Your task to perform on an android device: What's the weather today? Image 0: 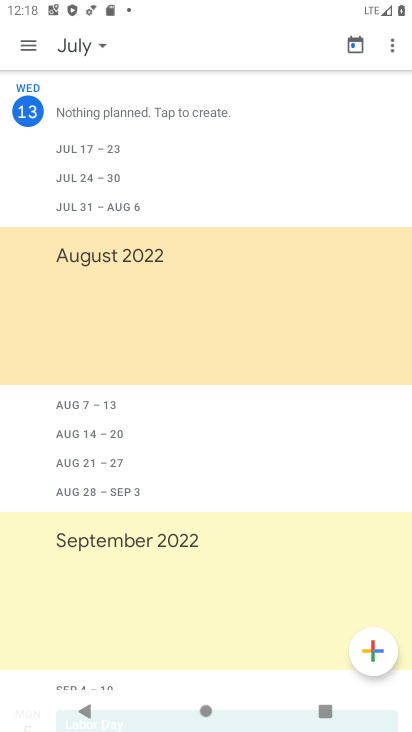
Step 0: press home button
Your task to perform on an android device: What's the weather today? Image 1: 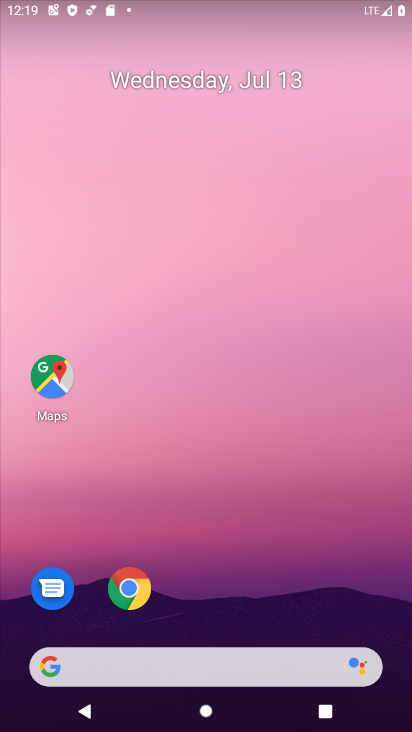
Step 1: drag from (400, 650) to (364, 133)
Your task to perform on an android device: What's the weather today? Image 2: 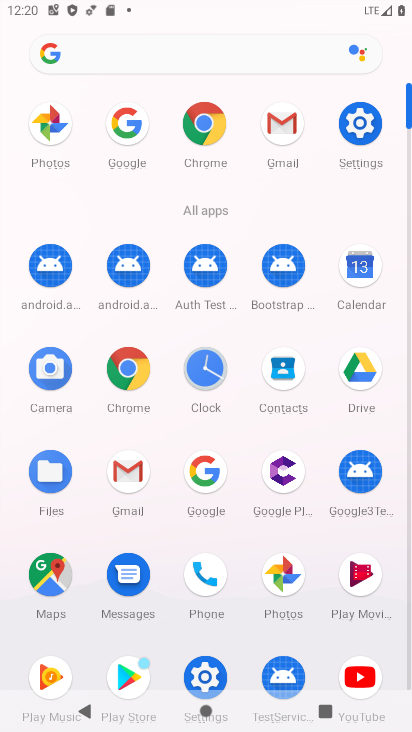
Step 2: click (207, 469)
Your task to perform on an android device: What's the weather today? Image 3: 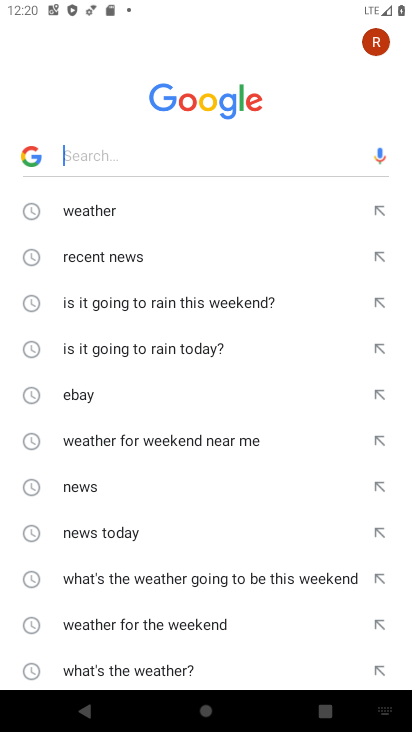
Step 3: click (84, 208)
Your task to perform on an android device: What's the weather today? Image 4: 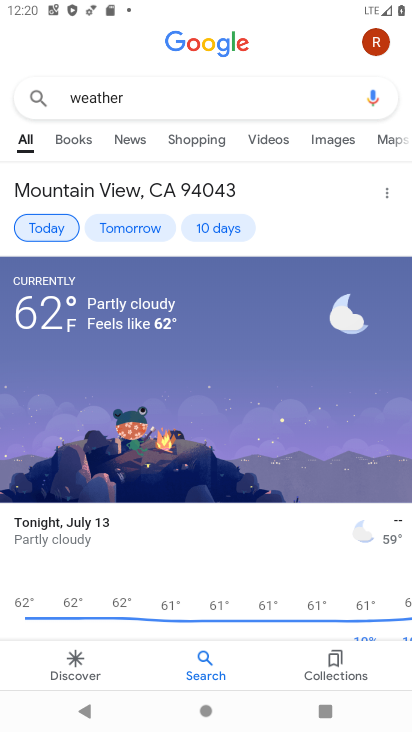
Step 4: task complete